Your task to perform on an android device: change the clock display to digital Image 0: 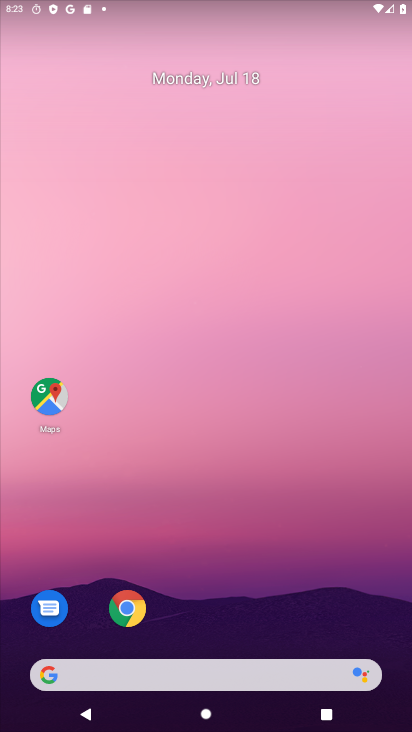
Step 0: drag from (61, 561) to (195, 354)
Your task to perform on an android device: change the clock display to digital Image 1: 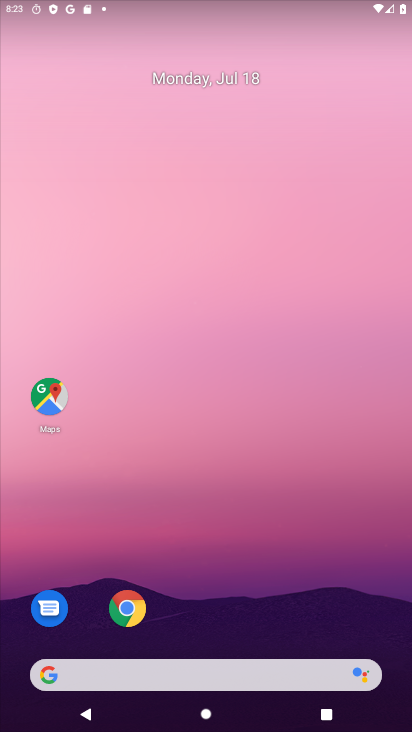
Step 1: drag from (30, 721) to (280, 92)
Your task to perform on an android device: change the clock display to digital Image 2: 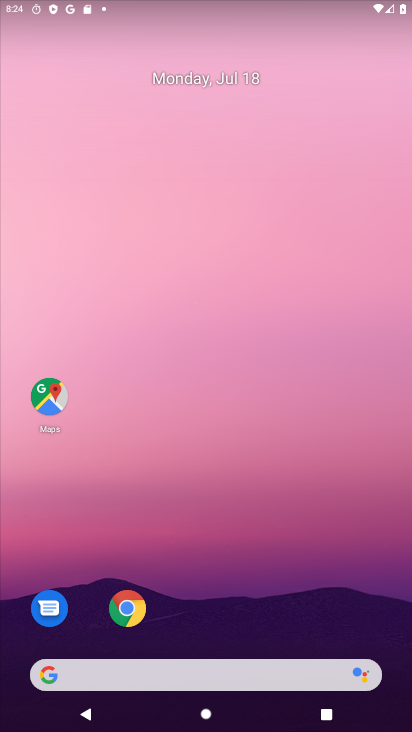
Step 2: drag from (19, 691) to (255, 259)
Your task to perform on an android device: change the clock display to digital Image 3: 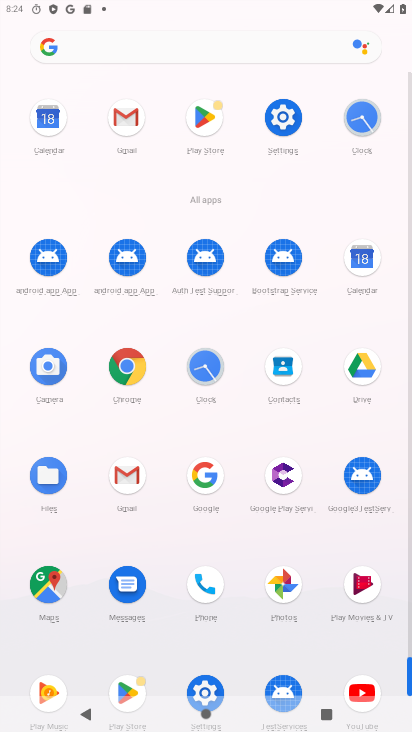
Step 3: click (196, 384)
Your task to perform on an android device: change the clock display to digital Image 4: 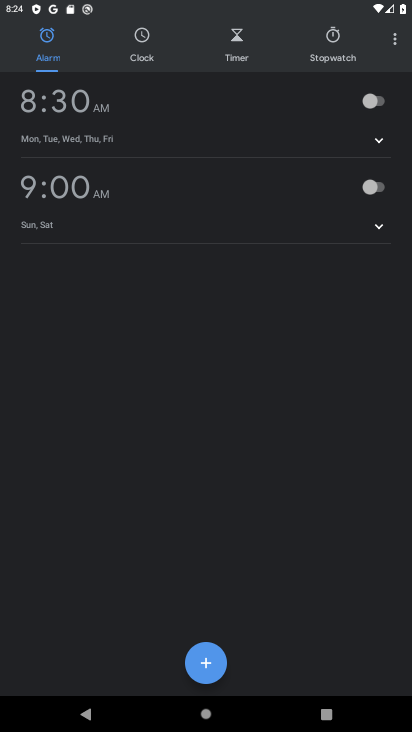
Step 4: click (391, 52)
Your task to perform on an android device: change the clock display to digital Image 5: 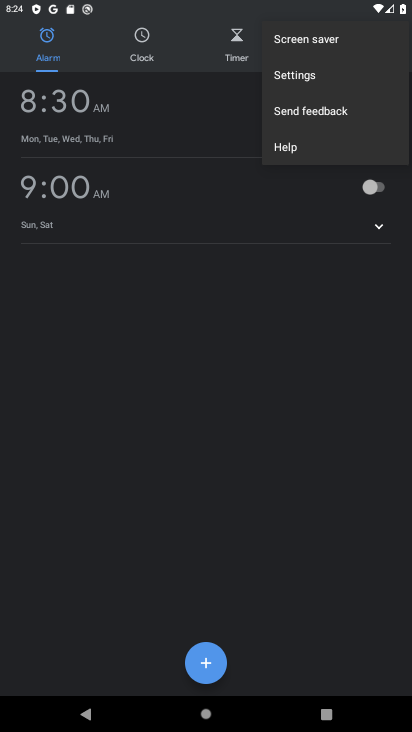
Step 5: click (296, 72)
Your task to perform on an android device: change the clock display to digital Image 6: 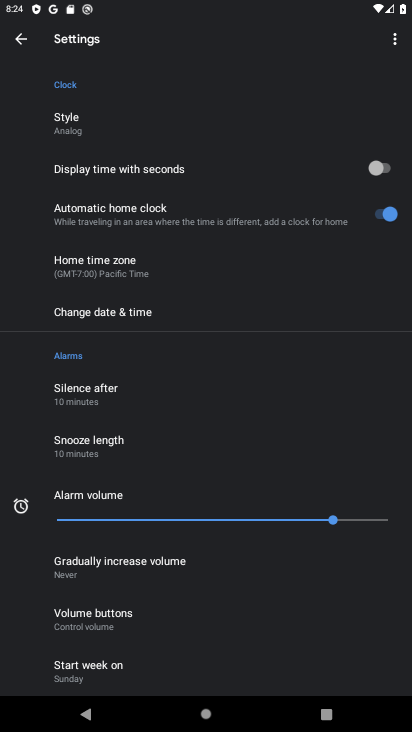
Step 6: click (119, 128)
Your task to perform on an android device: change the clock display to digital Image 7: 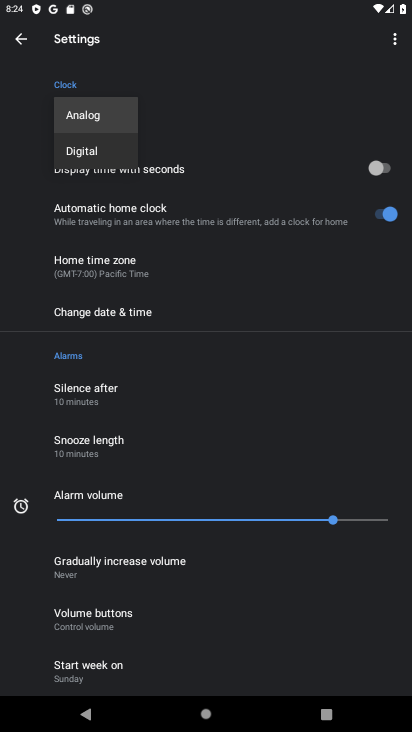
Step 7: click (113, 151)
Your task to perform on an android device: change the clock display to digital Image 8: 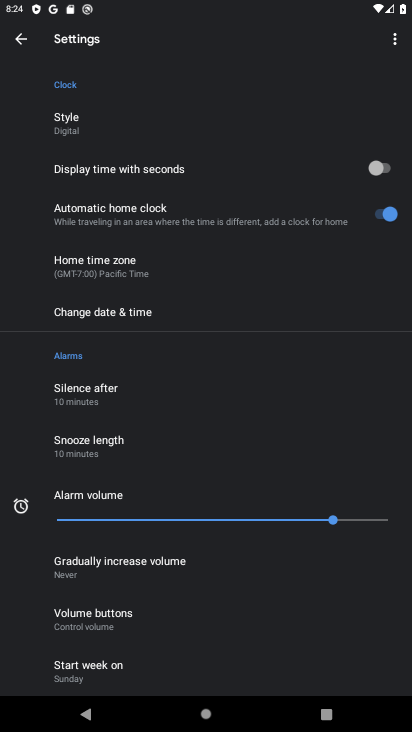
Step 8: click (326, 373)
Your task to perform on an android device: change the clock display to digital Image 9: 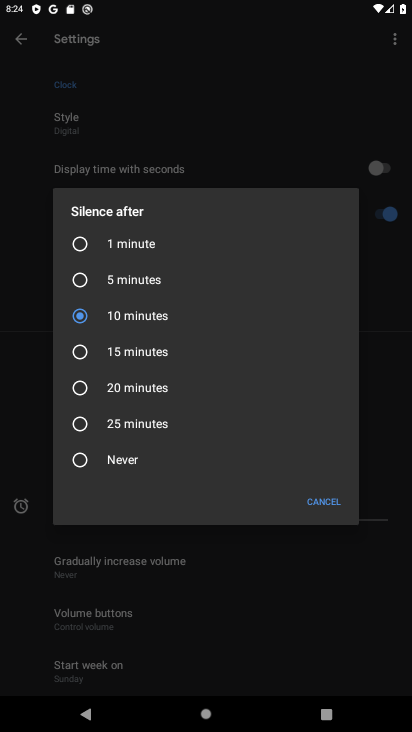
Step 9: task complete